Your task to perform on an android device: Open battery settings Image 0: 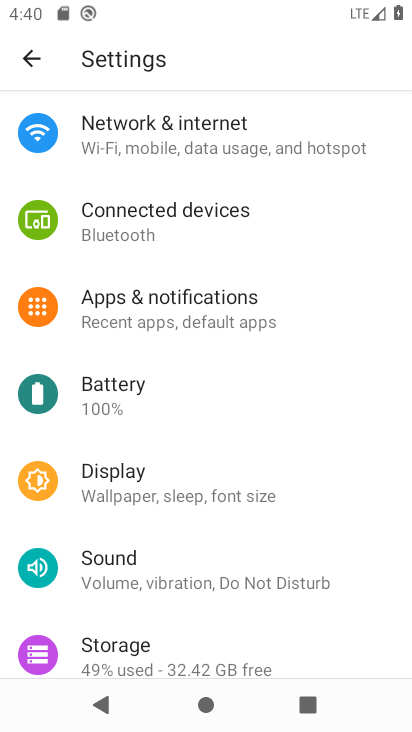
Step 0: click (137, 406)
Your task to perform on an android device: Open battery settings Image 1: 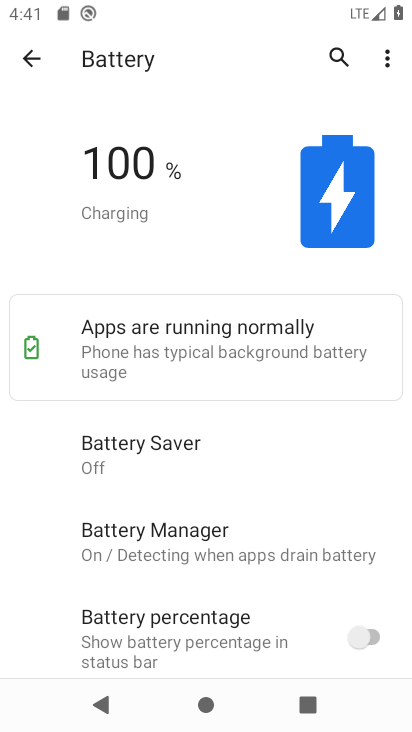
Step 1: task complete